Your task to perform on an android device: turn on data saver in the chrome app Image 0: 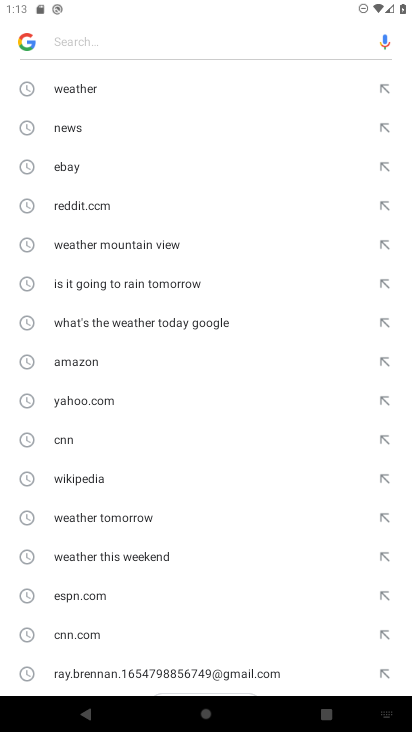
Step 0: press home button
Your task to perform on an android device: turn on data saver in the chrome app Image 1: 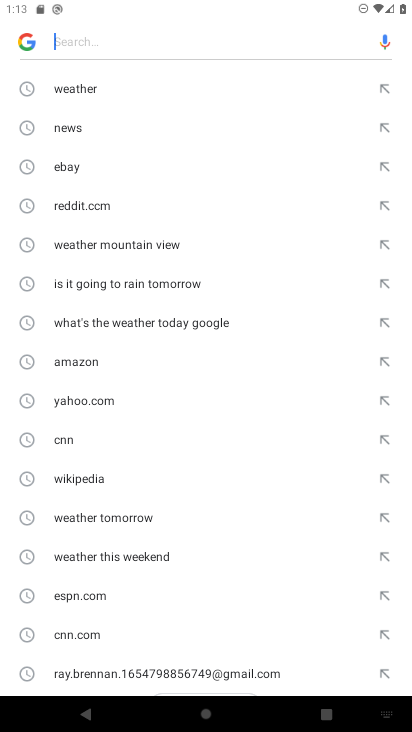
Step 1: press home button
Your task to perform on an android device: turn on data saver in the chrome app Image 2: 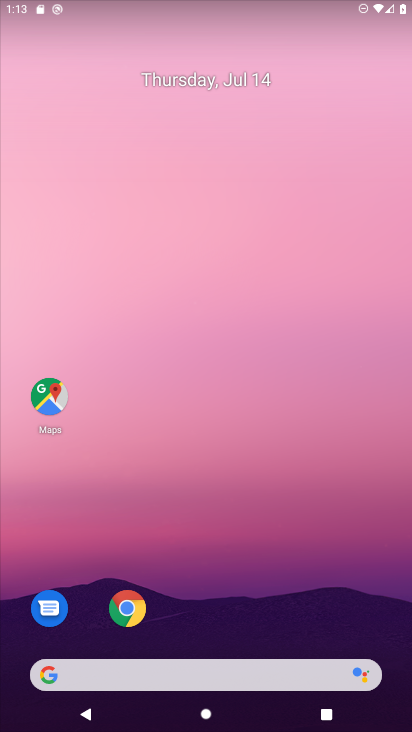
Step 2: drag from (241, 719) to (241, 216)
Your task to perform on an android device: turn on data saver in the chrome app Image 3: 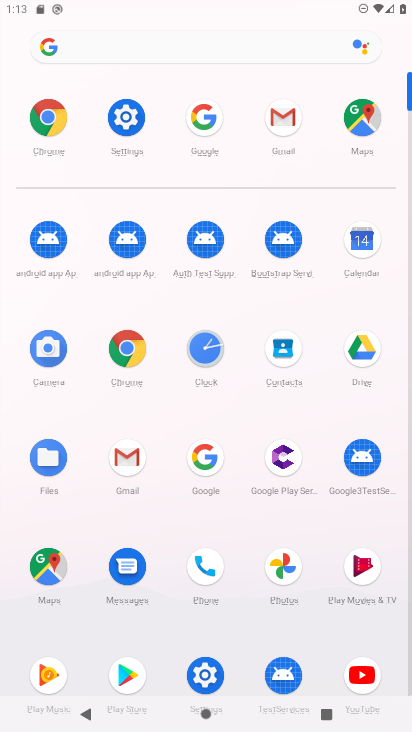
Step 3: click (133, 350)
Your task to perform on an android device: turn on data saver in the chrome app Image 4: 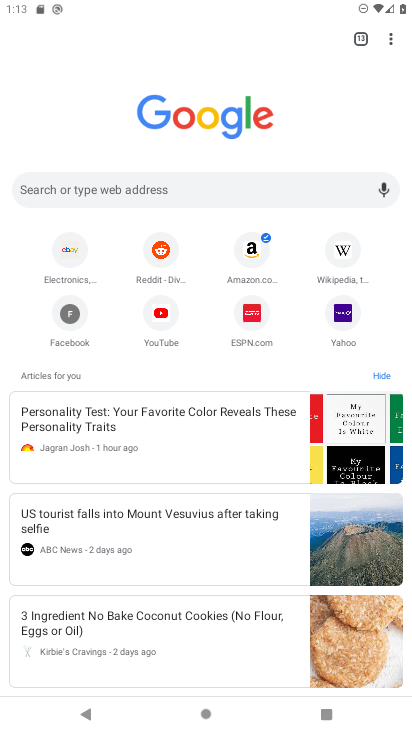
Step 4: click (389, 43)
Your task to perform on an android device: turn on data saver in the chrome app Image 5: 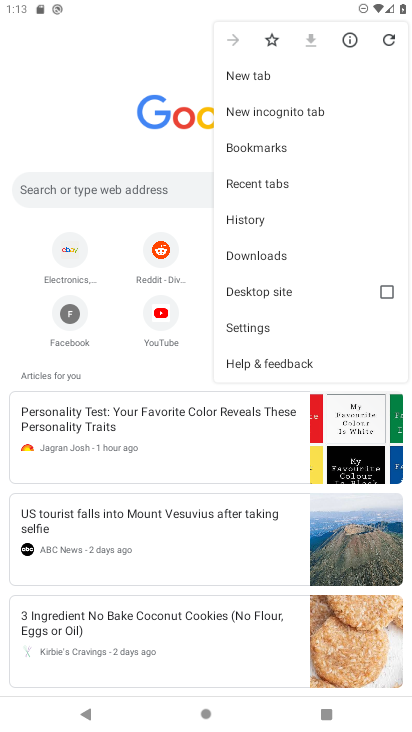
Step 5: click (248, 322)
Your task to perform on an android device: turn on data saver in the chrome app Image 6: 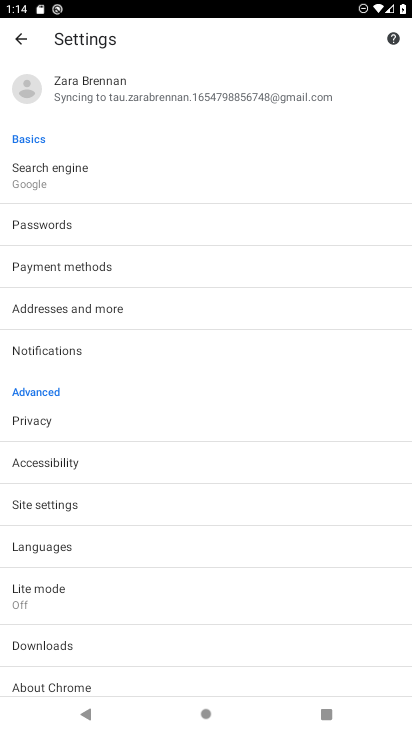
Step 6: click (43, 593)
Your task to perform on an android device: turn on data saver in the chrome app Image 7: 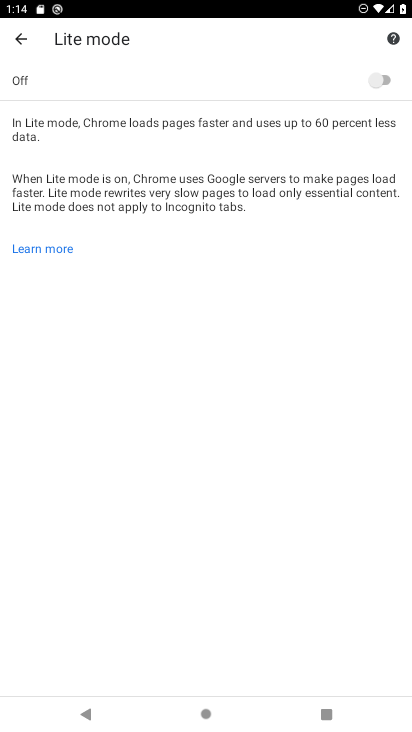
Step 7: click (385, 82)
Your task to perform on an android device: turn on data saver in the chrome app Image 8: 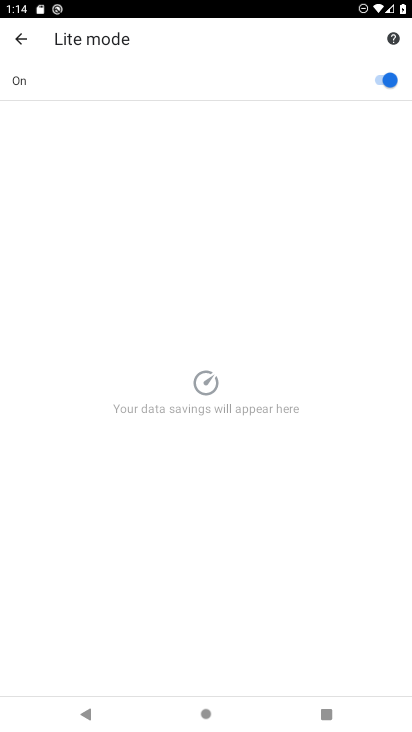
Step 8: task complete